Your task to perform on an android device: turn off translation in the chrome app Image 0: 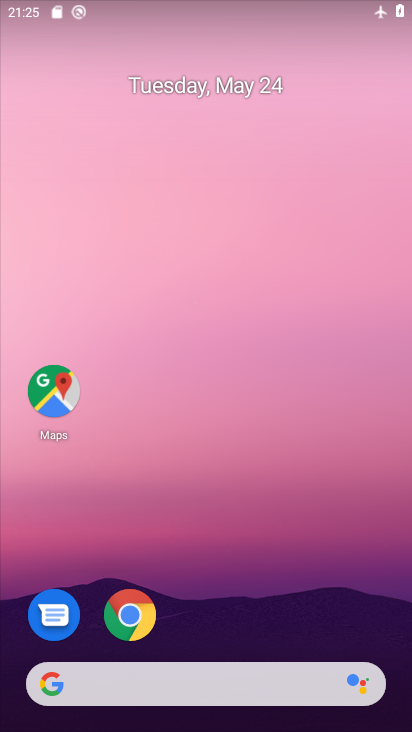
Step 0: click (250, 570)
Your task to perform on an android device: turn off translation in the chrome app Image 1: 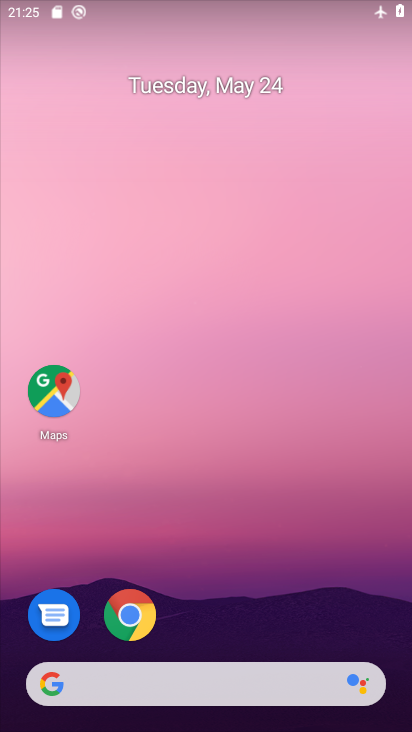
Step 1: drag from (206, 577) to (224, 167)
Your task to perform on an android device: turn off translation in the chrome app Image 2: 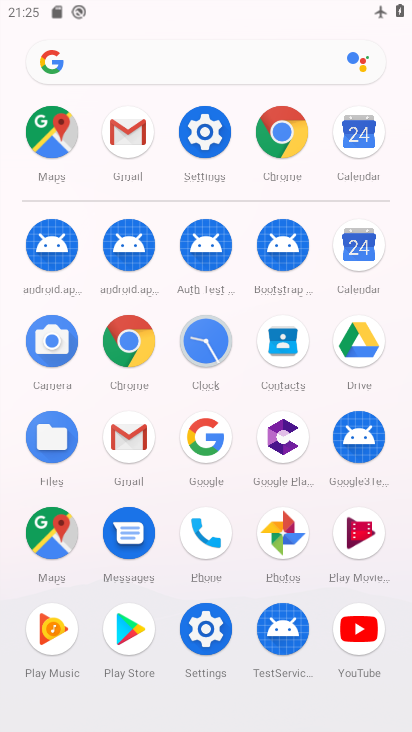
Step 2: click (272, 105)
Your task to perform on an android device: turn off translation in the chrome app Image 3: 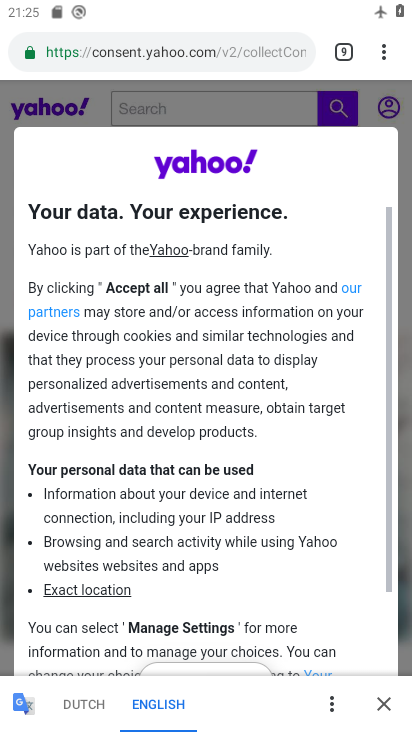
Step 3: click (393, 45)
Your task to perform on an android device: turn off translation in the chrome app Image 4: 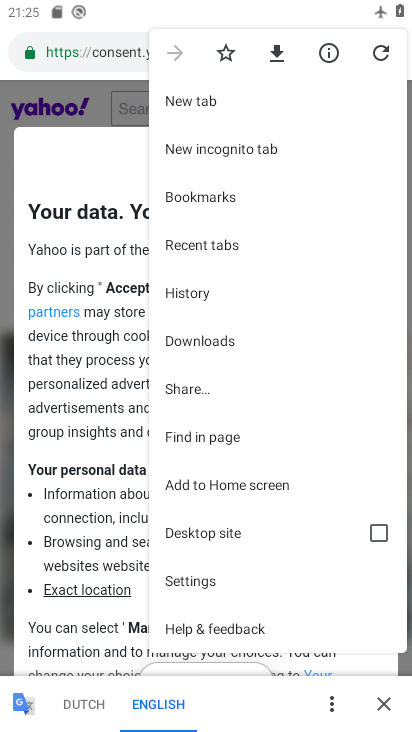
Step 4: click (196, 575)
Your task to perform on an android device: turn off translation in the chrome app Image 5: 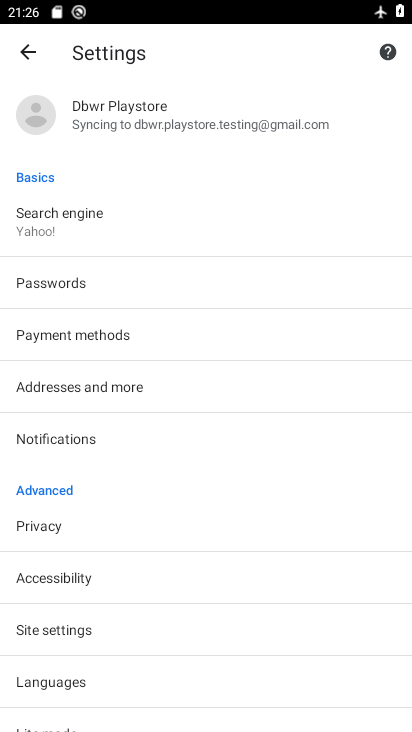
Step 5: drag from (179, 523) to (251, 194)
Your task to perform on an android device: turn off translation in the chrome app Image 6: 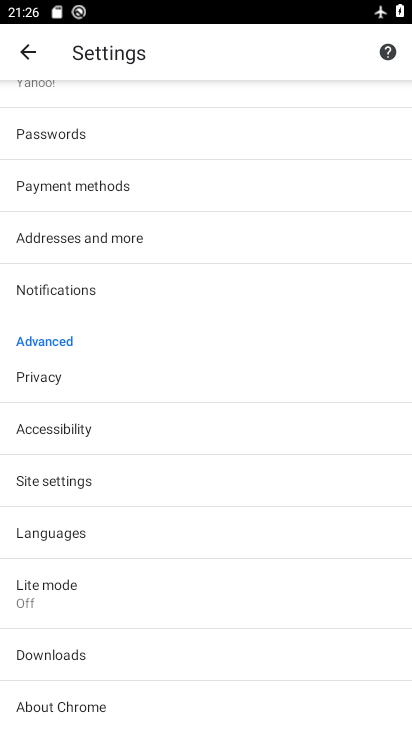
Step 6: click (133, 594)
Your task to perform on an android device: turn off translation in the chrome app Image 7: 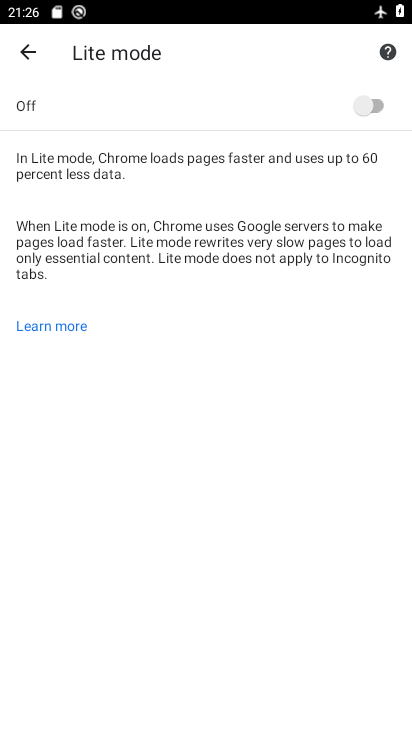
Step 7: task complete